Your task to perform on an android device: Search for vegetarian restaurants on Maps Image 0: 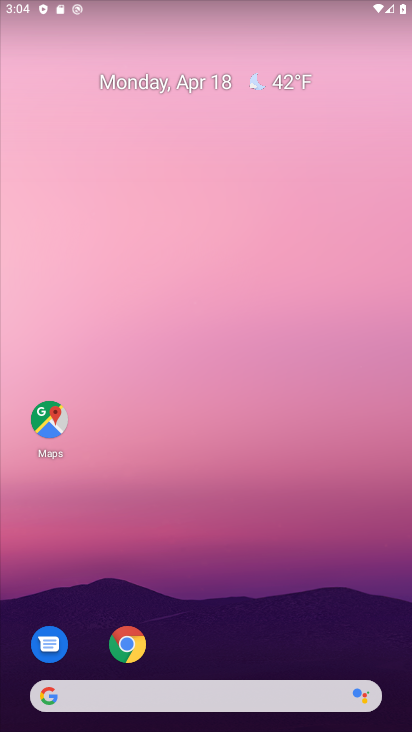
Step 0: click (54, 423)
Your task to perform on an android device: Search for vegetarian restaurants on Maps Image 1: 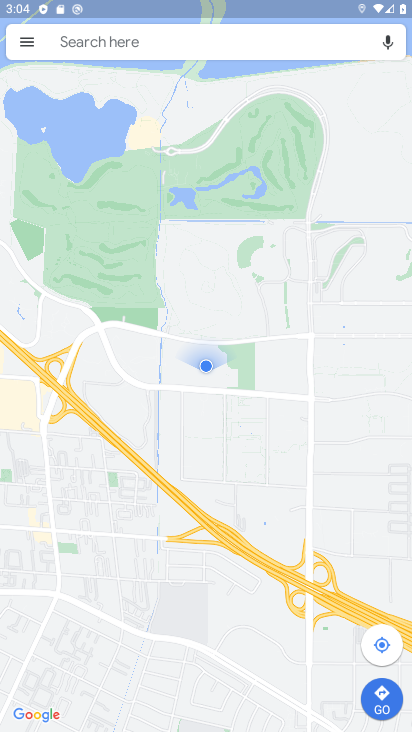
Step 1: click (188, 43)
Your task to perform on an android device: Search for vegetarian restaurants on Maps Image 2: 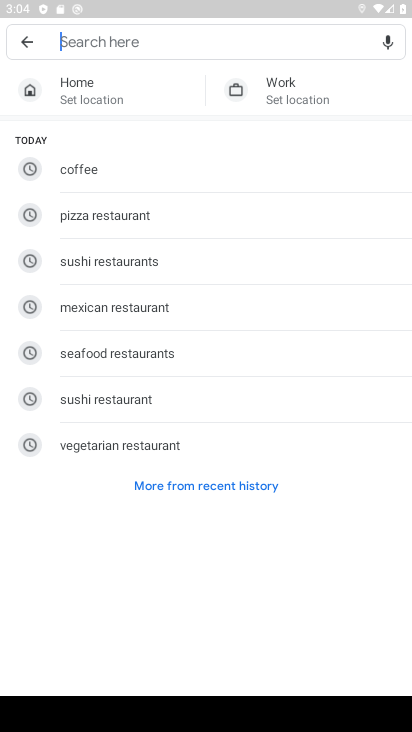
Step 2: click (162, 449)
Your task to perform on an android device: Search for vegetarian restaurants on Maps Image 3: 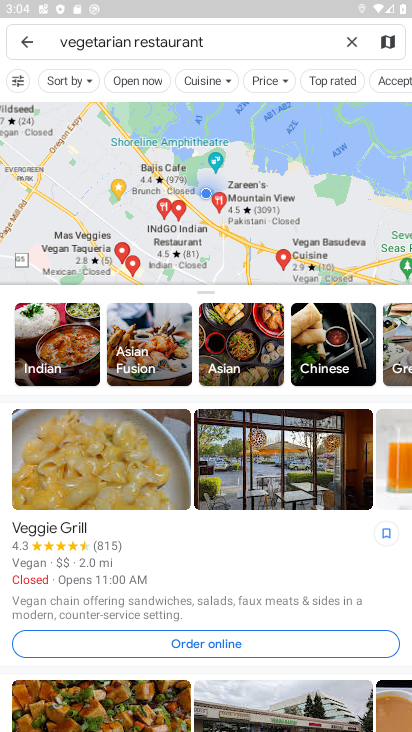
Step 3: task complete